Your task to perform on an android device: Go to accessibility settings Image 0: 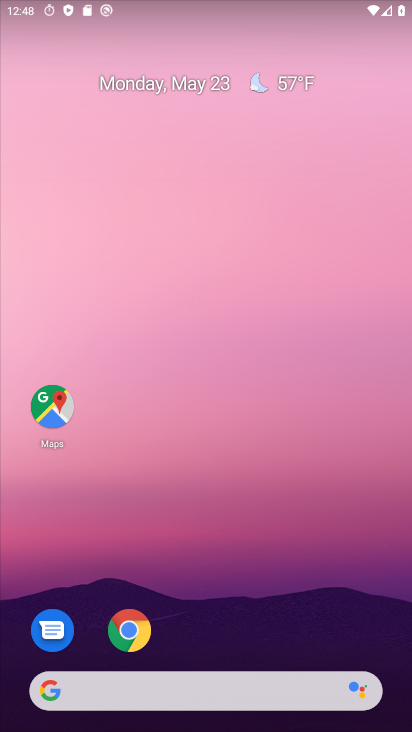
Step 0: drag from (266, 576) to (223, 6)
Your task to perform on an android device: Go to accessibility settings Image 1: 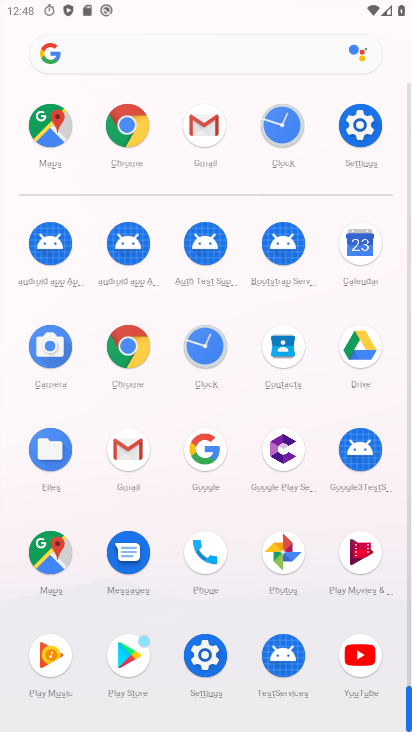
Step 1: drag from (4, 581) to (3, 195)
Your task to perform on an android device: Go to accessibility settings Image 2: 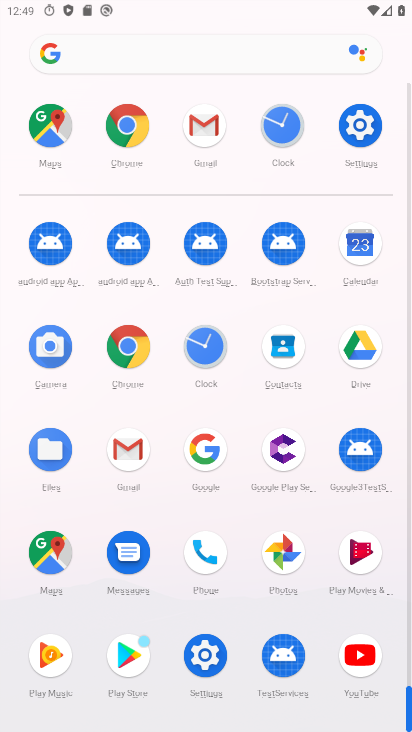
Step 2: click (205, 651)
Your task to perform on an android device: Go to accessibility settings Image 3: 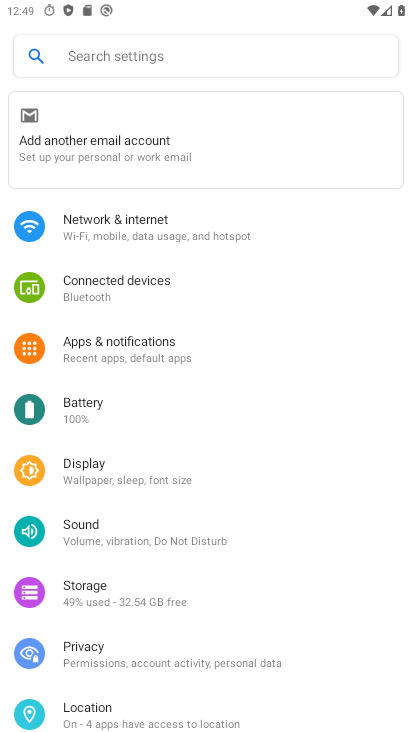
Step 3: drag from (230, 617) to (230, 187)
Your task to perform on an android device: Go to accessibility settings Image 4: 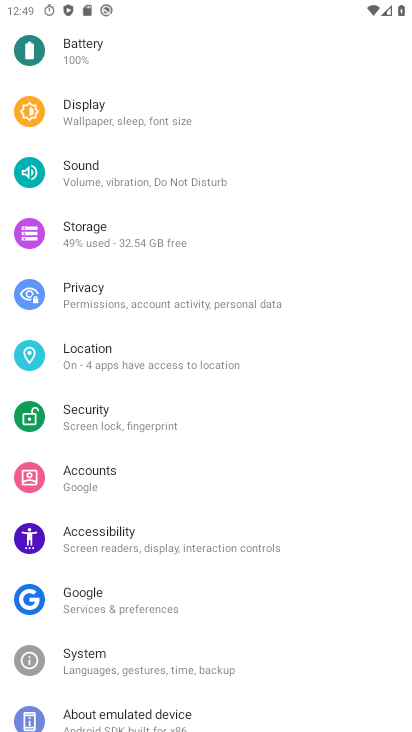
Step 4: drag from (131, 586) to (204, 152)
Your task to perform on an android device: Go to accessibility settings Image 5: 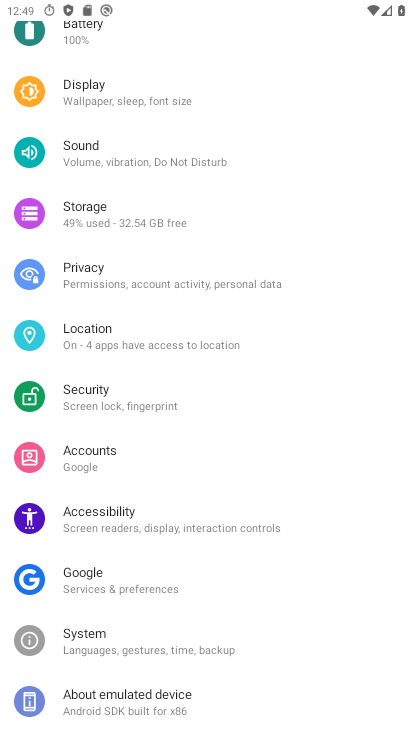
Step 5: click (152, 523)
Your task to perform on an android device: Go to accessibility settings Image 6: 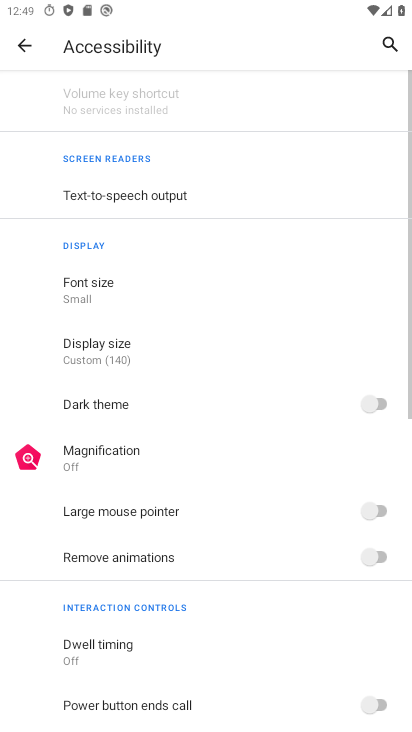
Step 6: task complete